Your task to perform on an android device: Open Google Image 0: 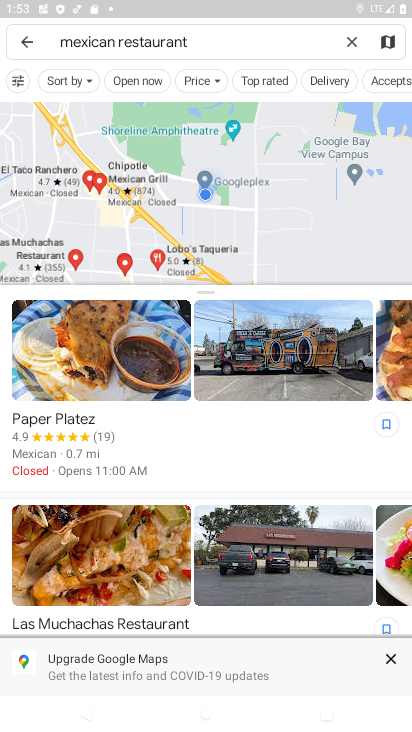
Step 0: press home button
Your task to perform on an android device: Open Google Image 1: 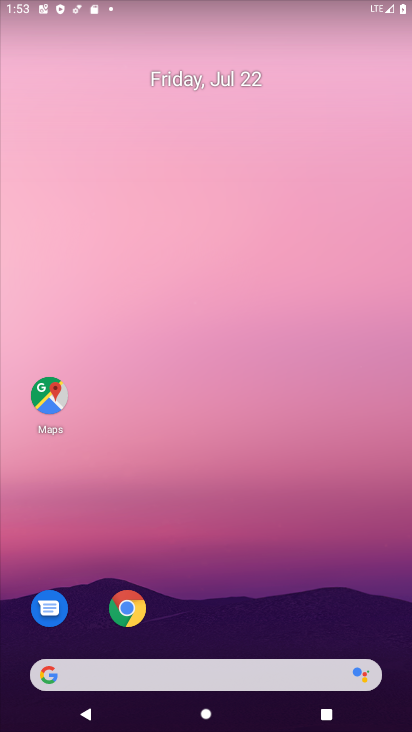
Step 1: drag from (234, 725) to (223, 166)
Your task to perform on an android device: Open Google Image 2: 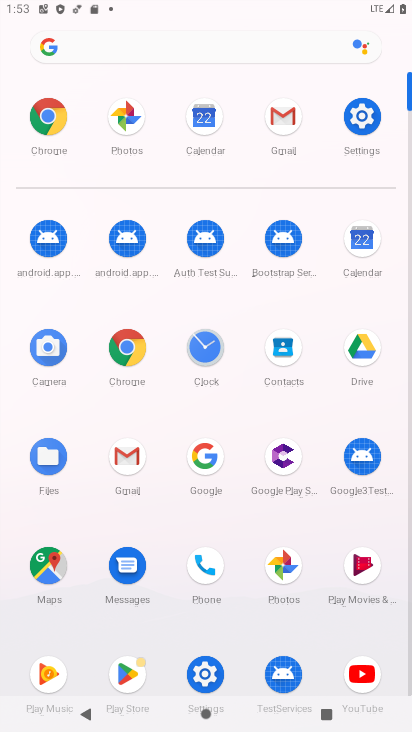
Step 2: click (205, 462)
Your task to perform on an android device: Open Google Image 3: 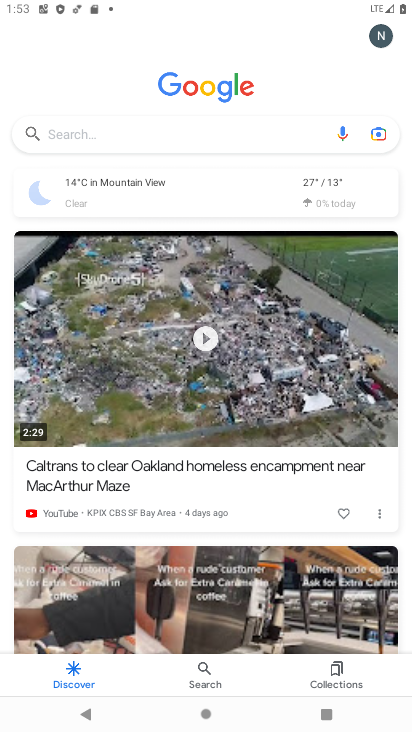
Step 3: task complete